Your task to perform on an android device: set the stopwatch Image 0: 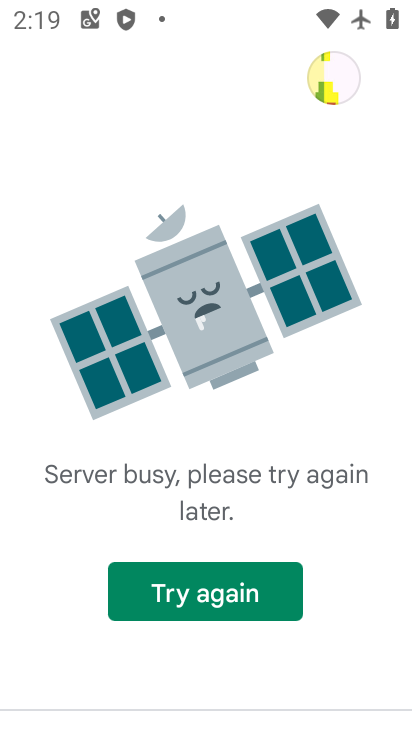
Step 0: press home button
Your task to perform on an android device: set the stopwatch Image 1: 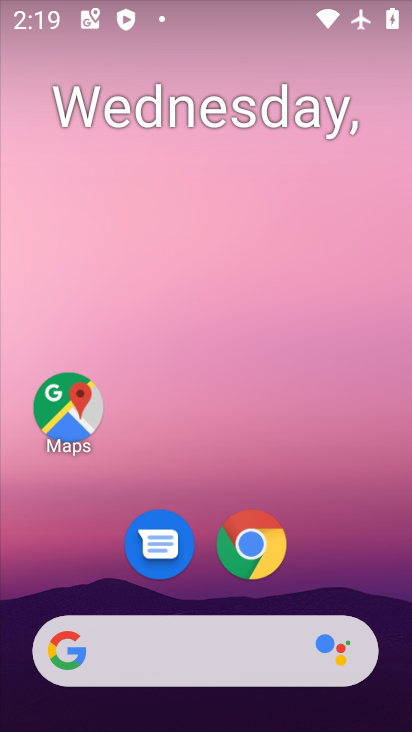
Step 1: drag from (349, 606) to (396, 187)
Your task to perform on an android device: set the stopwatch Image 2: 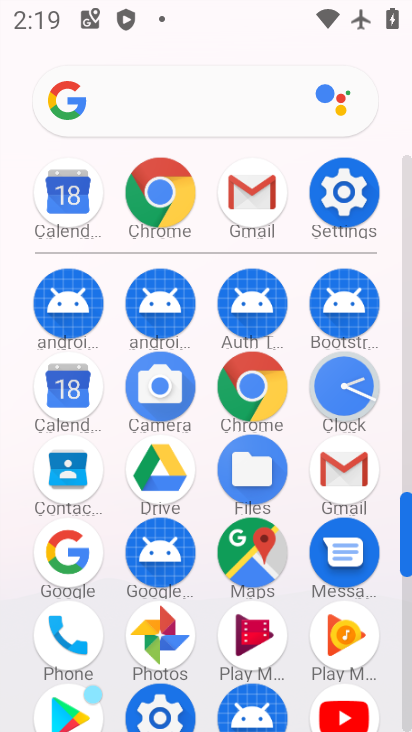
Step 2: click (334, 391)
Your task to perform on an android device: set the stopwatch Image 3: 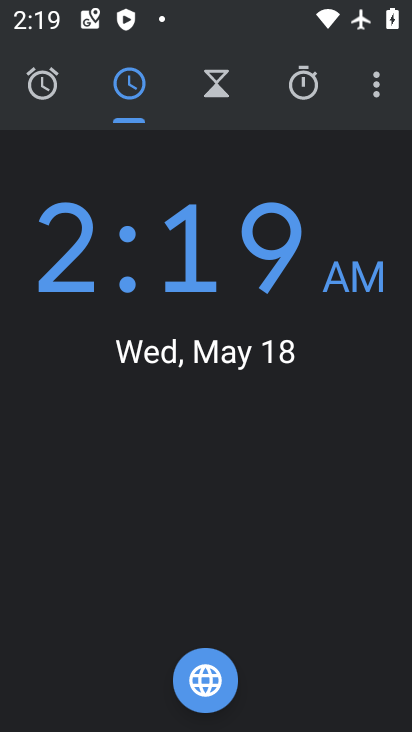
Step 3: click (309, 47)
Your task to perform on an android device: set the stopwatch Image 4: 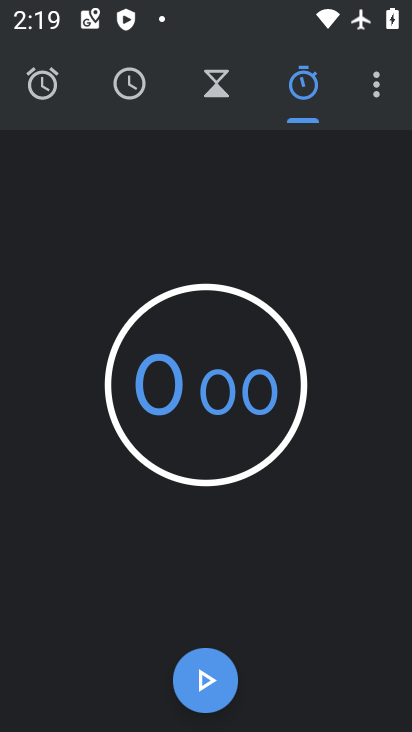
Step 4: task complete